Your task to perform on an android device: Find coffee shops on Maps Image 0: 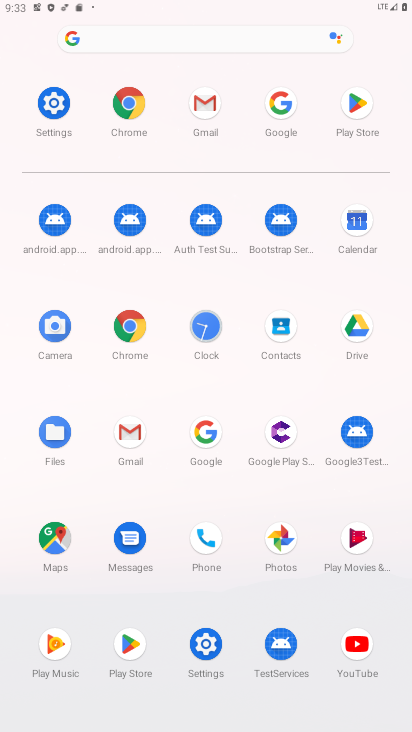
Step 0: click (50, 542)
Your task to perform on an android device: Find coffee shops on Maps Image 1: 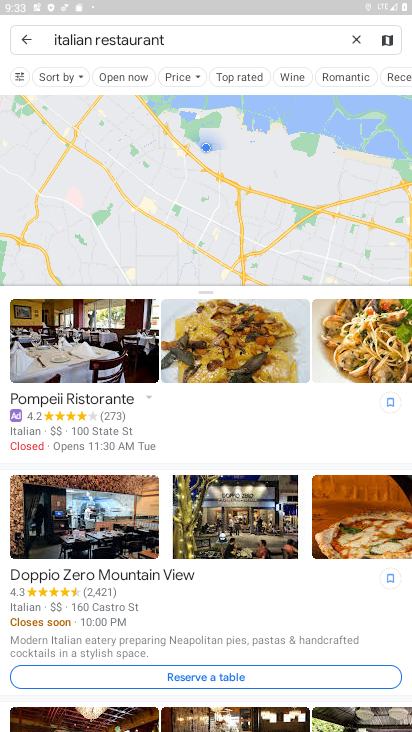
Step 1: click (356, 36)
Your task to perform on an android device: Find coffee shops on Maps Image 2: 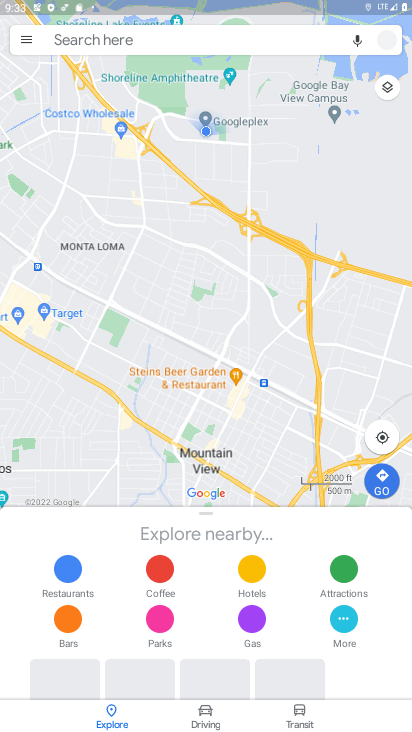
Step 2: click (139, 40)
Your task to perform on an android device: Find coffee shops on Maps Image 3: 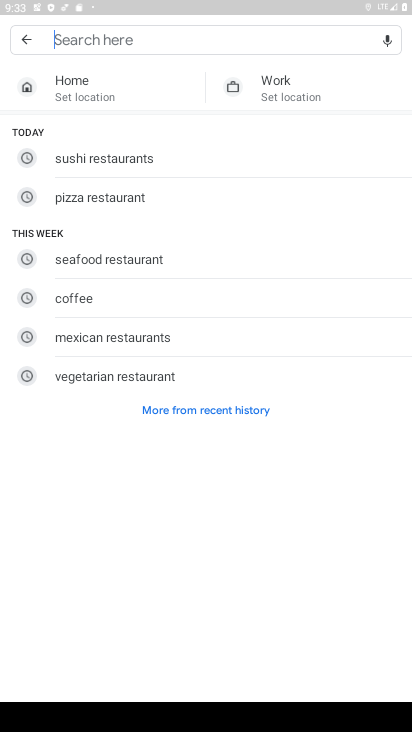
Step 3: type "coffee shops "
Your task to perform on an android device: Find coffee shops on Maps Image 4: 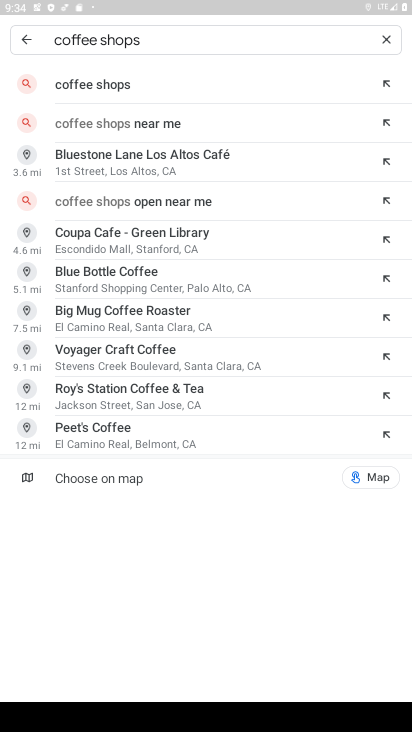
Step 4: click (110, 80)
Your task to perform on an android device: Find coffee shops on Maps Image 5: 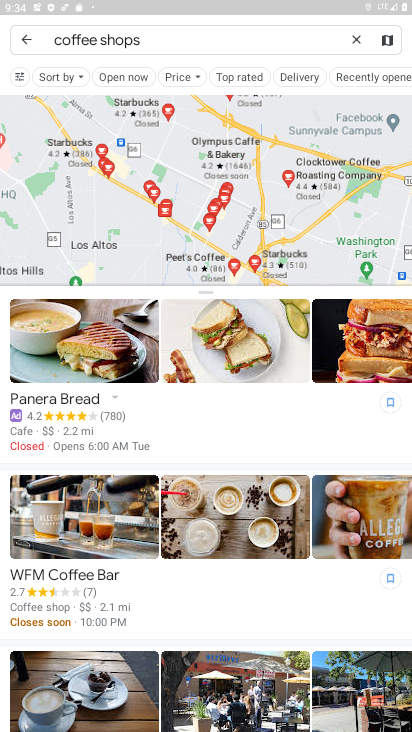
Step 5: task complete